Your task to perform on an android device: Go to Google maps Image 0: 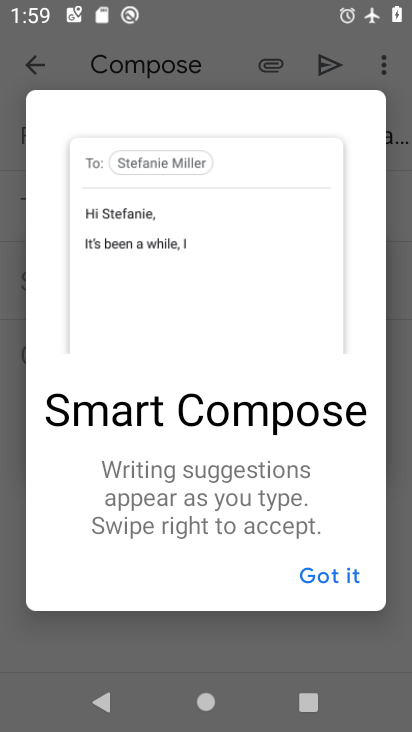
Step 0: press home button
Your task to perform on an android device: Go to Google maps Image 1: 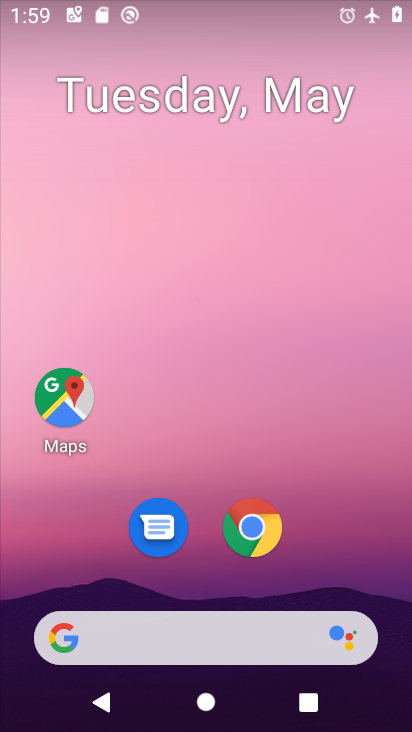
Step 1: click (72, 388)
Your task to perform on an android device: Go to Google maps Image 2: 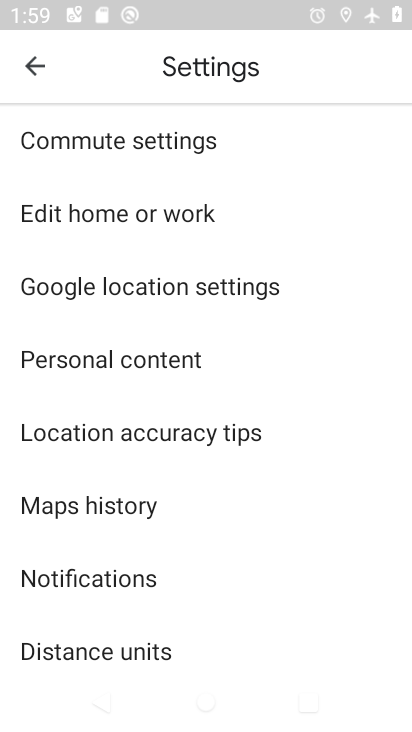
Step 2: click (45, 68)
Your task to perform on an android device: Go to Google maps Image 3: 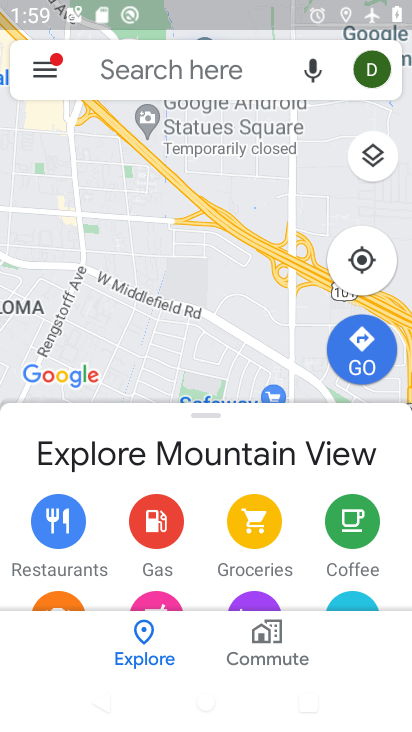
Step 3: task complete